Your task to perform on an android device: Open the calendar app Image 0: 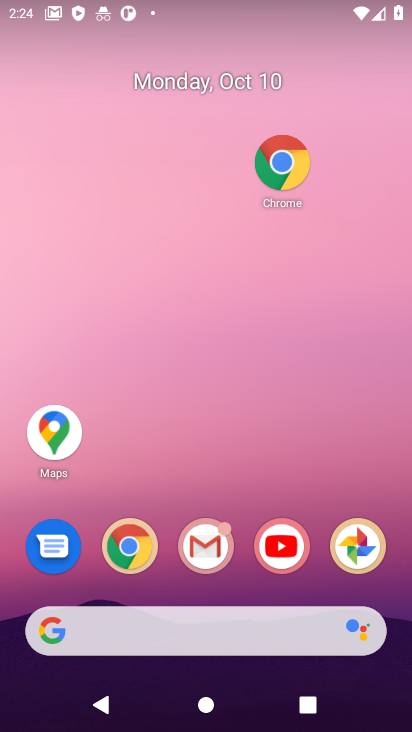
Step 0: drag from (250, 176) to (258, 105)
Your task to perform on an android device: Open the calendar app Image 1: 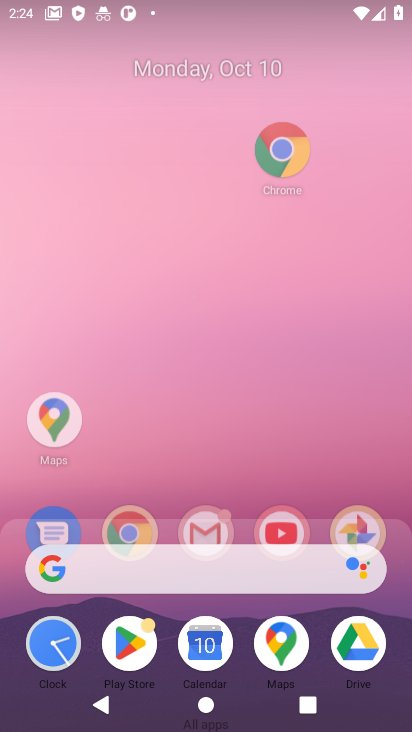
Step 1: drag from (297, 83) to (309, 40)
Your task to perform on an android device: Open the calendar app Image 2: 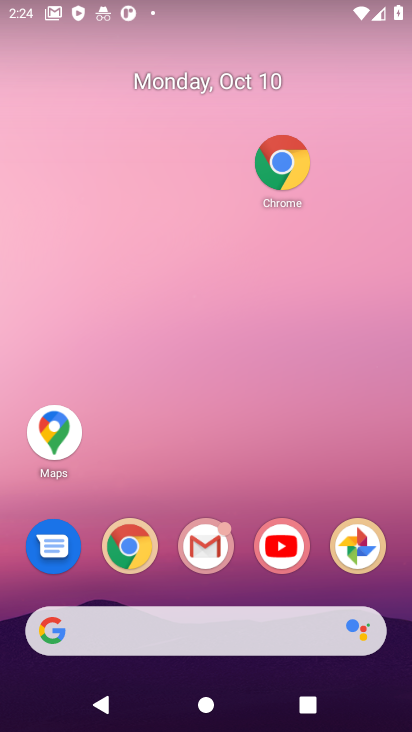
Step 2: click (213, 87)
Your task to perform on an android device: Open the calendar app Image 3: 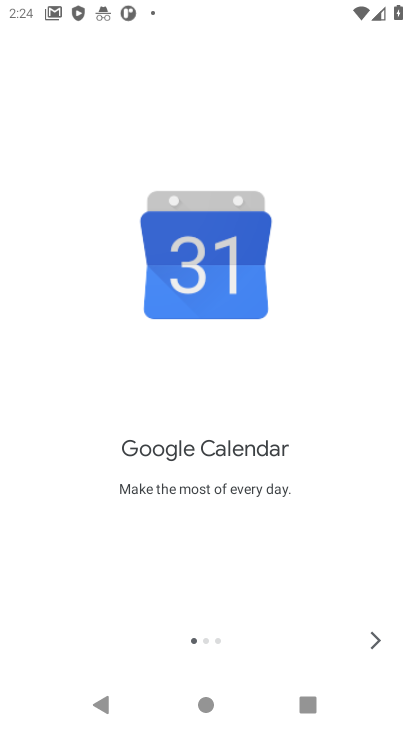
Step 3: click (380, 633)
Your task to perform on an android device: Open the calendar app Image 4: 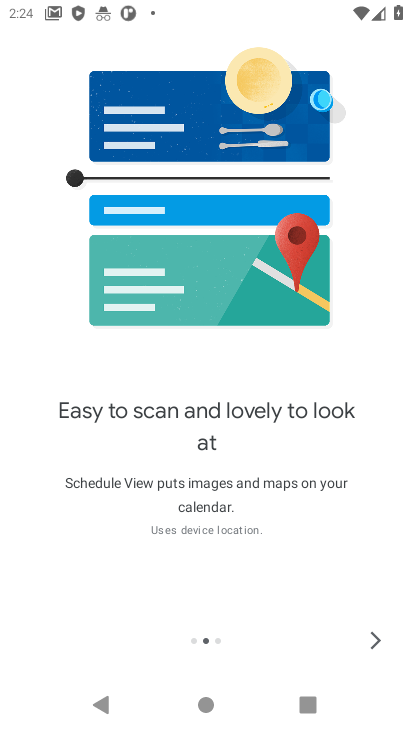
Step 4: click (380, 633)
Your task to perform on an android device: Open the calendar app Image 5: 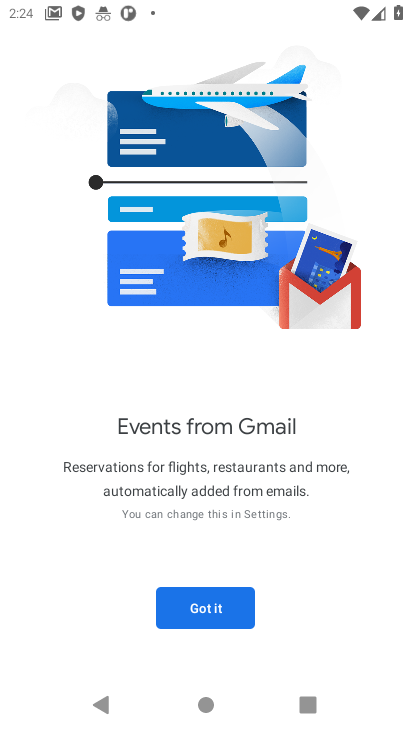
Step 5: click (234, 613)
Your task to perform on an android device: Open the calendar app Image 6: 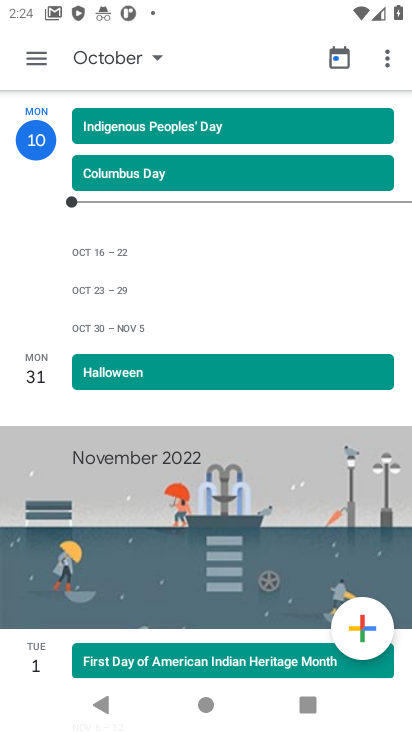
Step 6: task complete